Your task to perform on an android device: show emergency info Image 0: 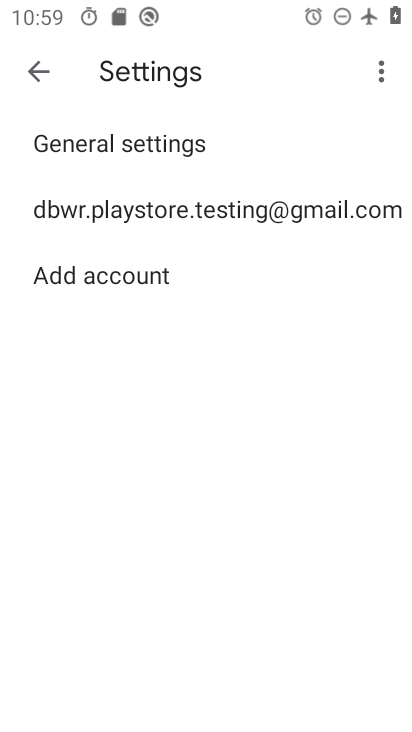
Step 0: press home button
Your task to perform on an android device: show emergency info Image 1: 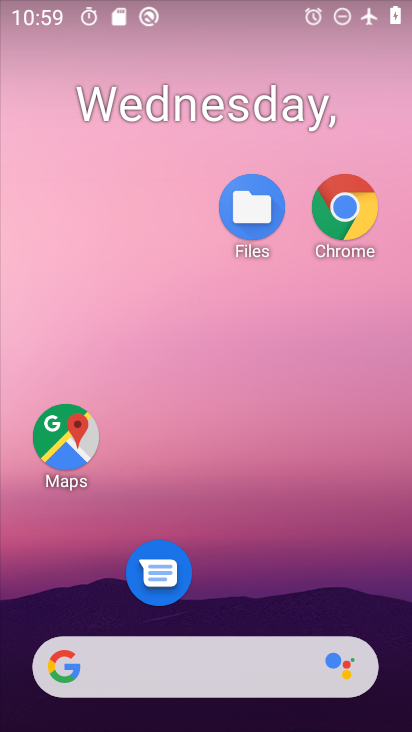
Step 1: drag from (238, 647) to (300, 29)
Your task to perform on an android device: show emergency info Image 2: 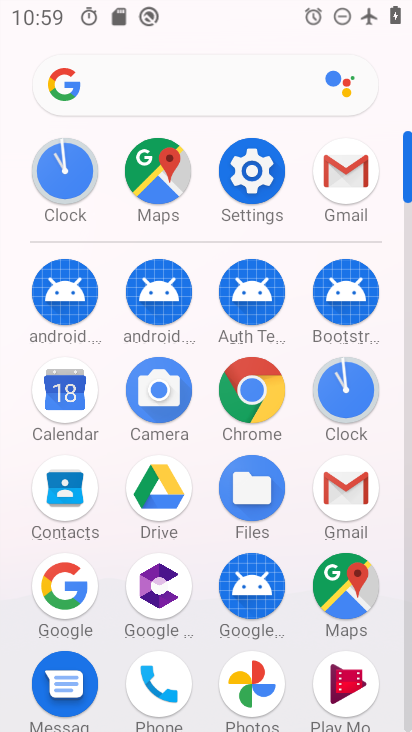
Step 2: click (258, 194)
Your task to perform on an android device: show emergency info Image 3: 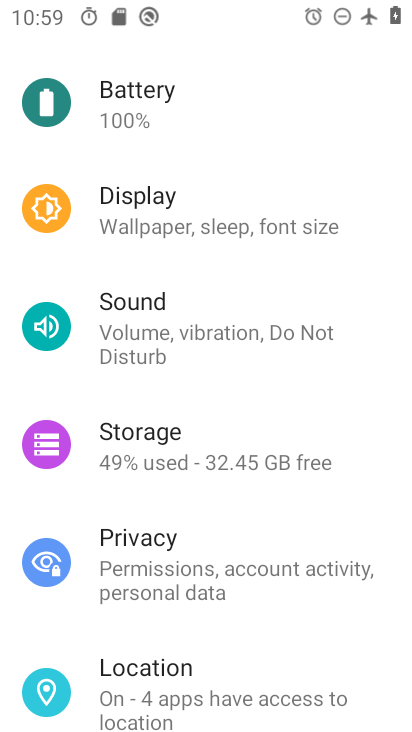
Step 3: drag from (208, 543) to (193, 142)
Your task to perform on an android device: show emergency info Image 4: 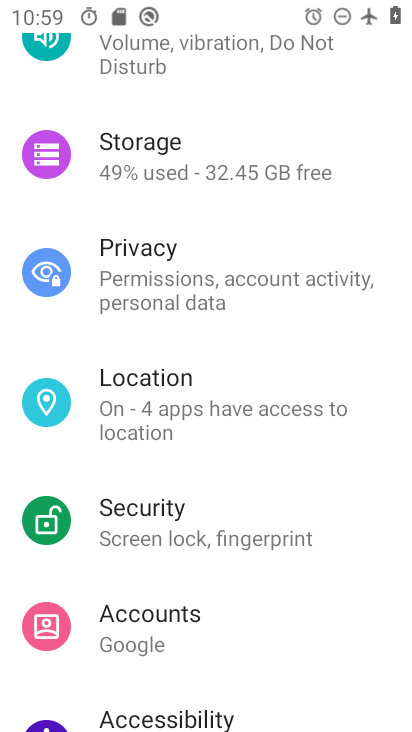
Step 4: drag from (182, 533) to (176, 249)
Your task to perform on an android device: show emergency info Image 5: 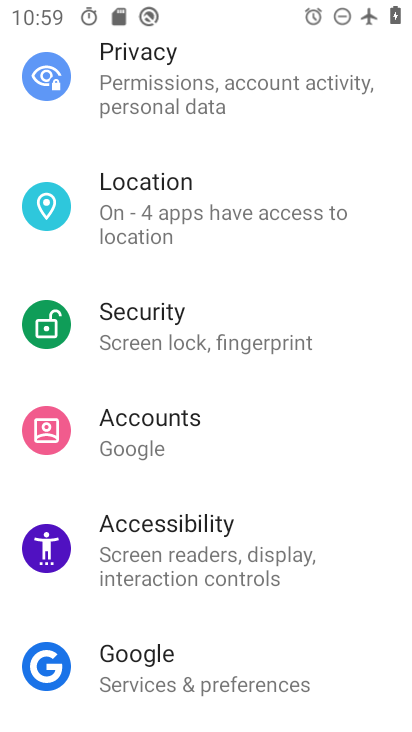
Step 5: drag from (197, 603) to (206, 318)
Your task to perform on an android device: show emergency info Image 6: 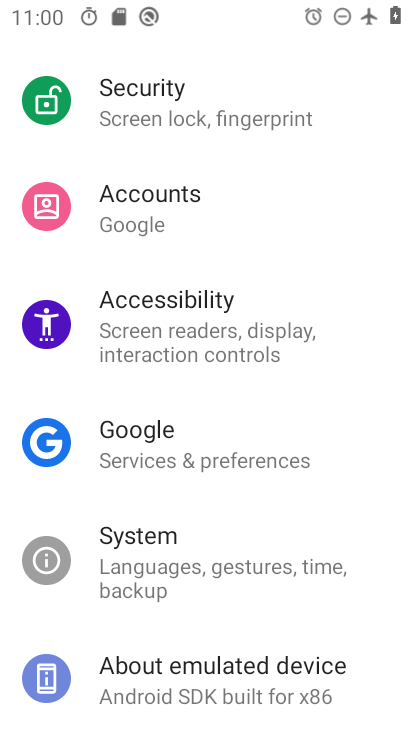
Step 6: click (275, 675)
Your task to perform on an android device: show emergency info Image 7: 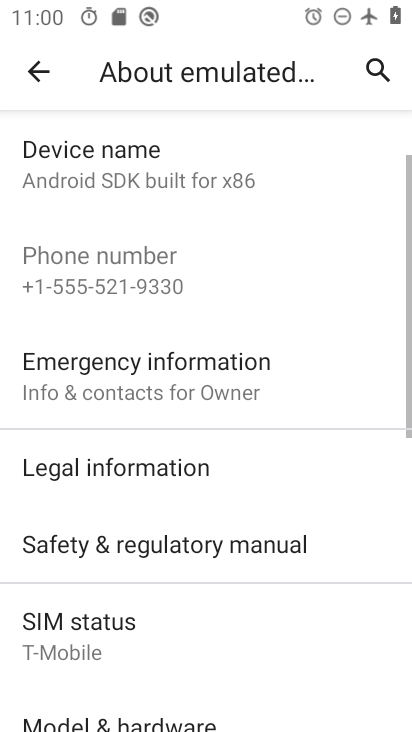
Step 7: click (169, 386)
Your task to perform on an android device: show emergency info Image 8: 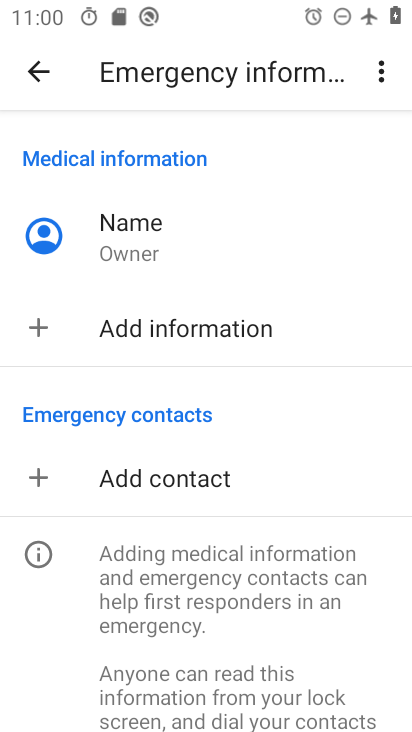
Step 8: task complete